Your task to perform on an android device: Open Google Maps Image 0: 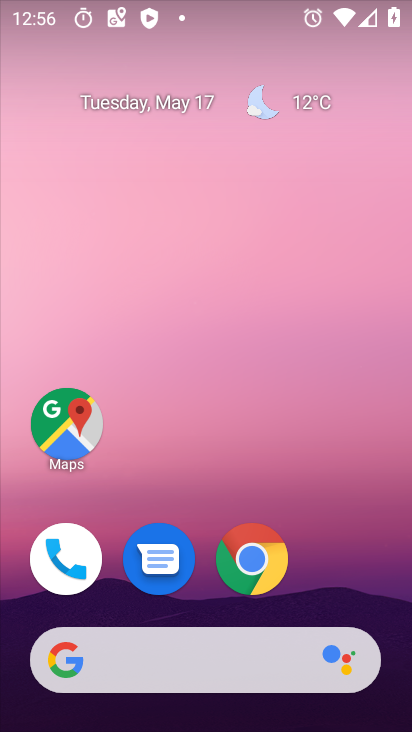
Step 0: click (60, 421)
Your task to perform on an android device: Open Google Maps Image 1: 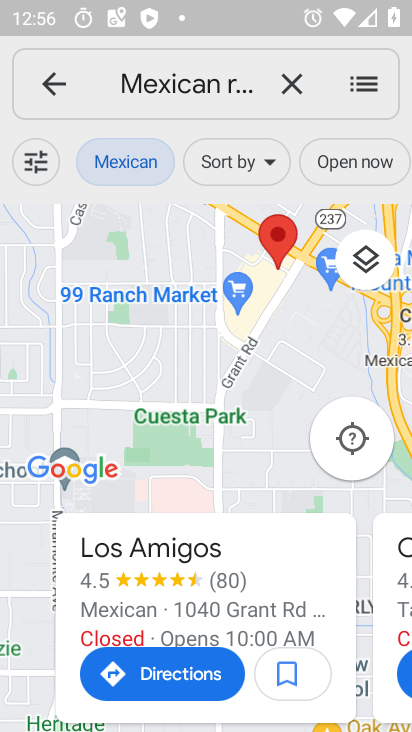
Step 1: task complete